Your task to perform on an android device: Open calendar and show me the fourth week of next month Image 0: 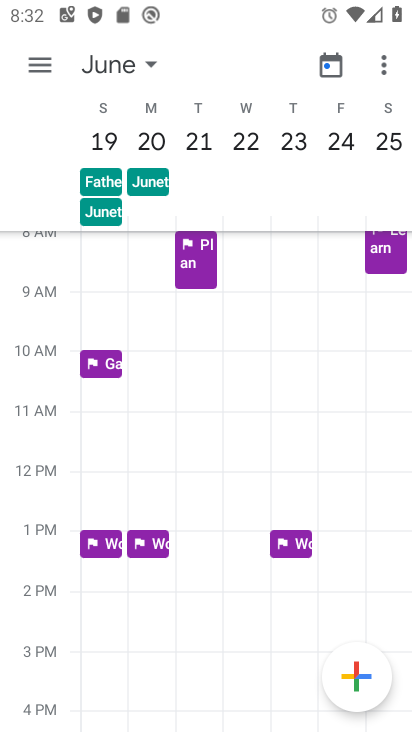
Step 0: drag from (344, 153) to (0, 112)
Your task to perform on an android device: Open calendar and show me the fourth week of next month Image 1: 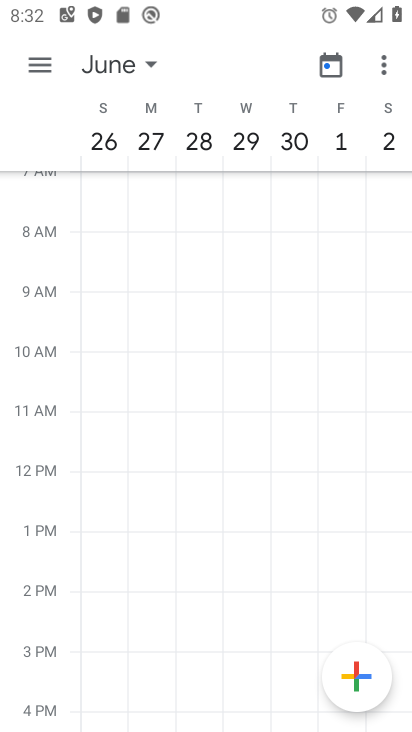
Step 1: task complete